Your task to perform on an android device: Play the new Justin Bieber video on YouTube Image 0: 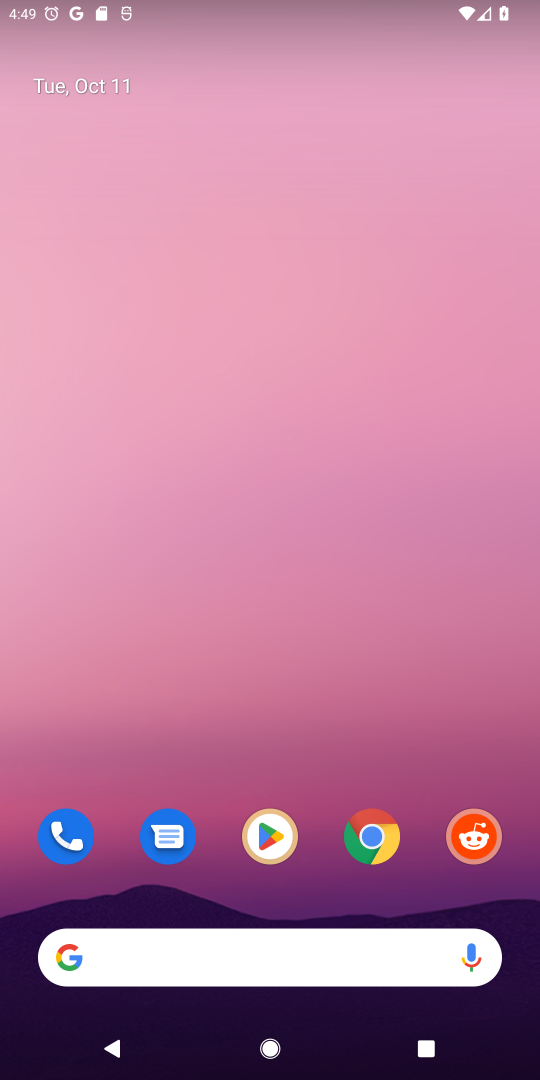
Step 0: drag from (214, 730) to (203, 34)
Your task to perform on an android device: Play the new Justin Bieber video on YouTube Image 1: 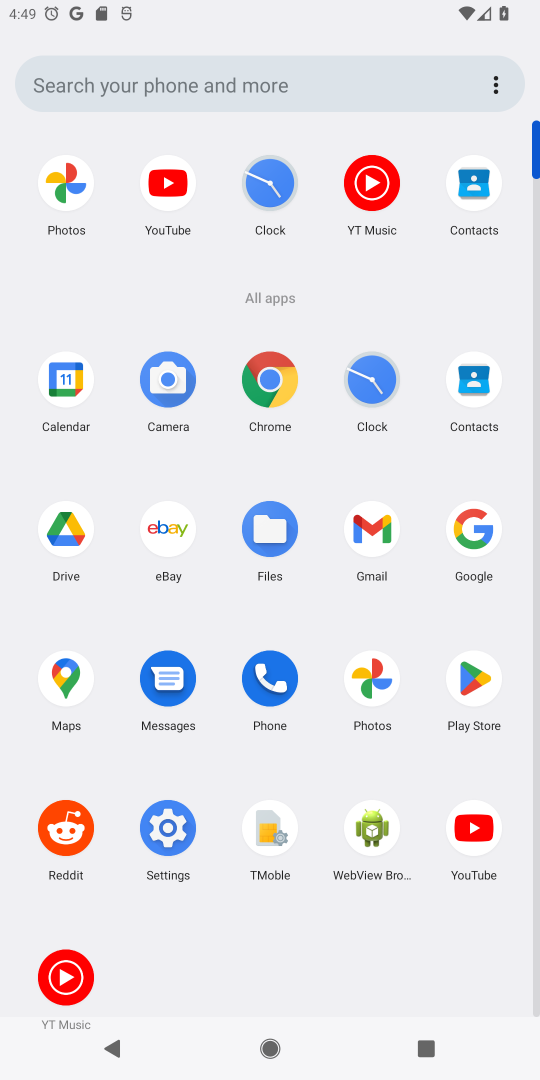
Step 1: click (135, 180)
Your task to perform on an android device: Play the new Justin Bieber video on YouTube Image 2: 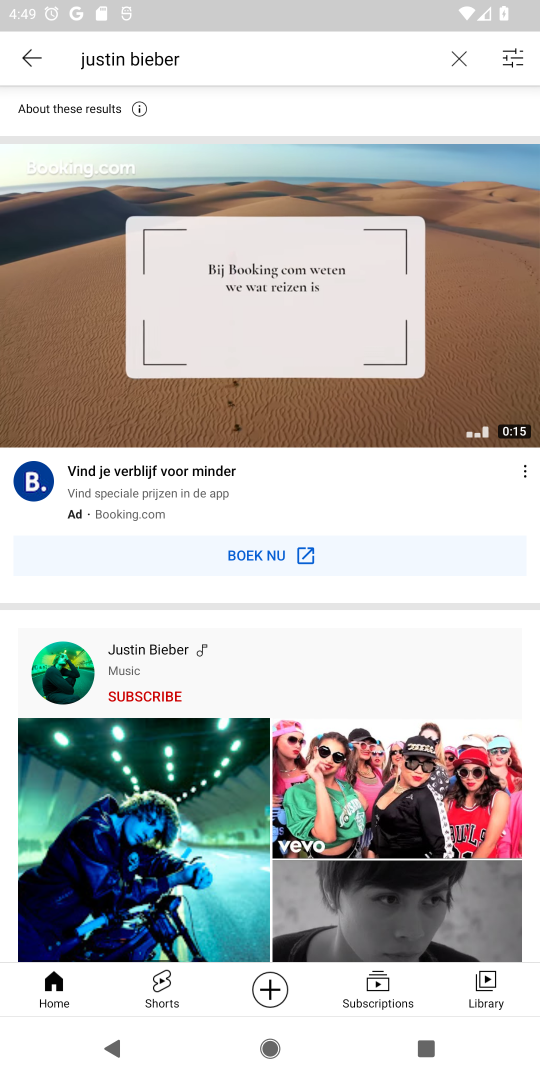
Step 2: task complete